Your task to perform on an android device: toggle sleep mode Image 0: 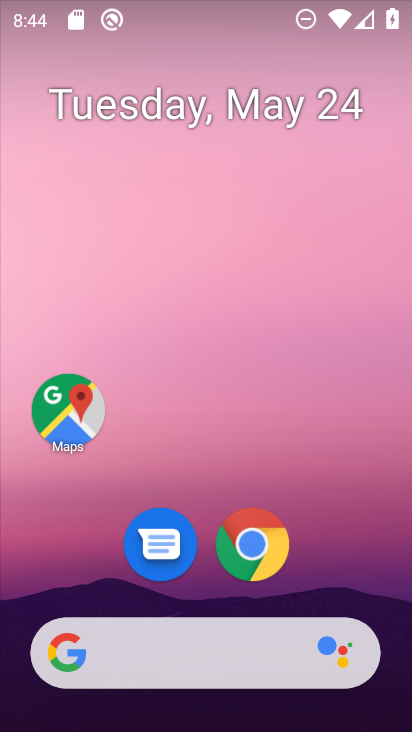
Step 0: drag from (362, 589) to (238, 37)
Your task to perform on an android device: toggle sleep mode Image 1: 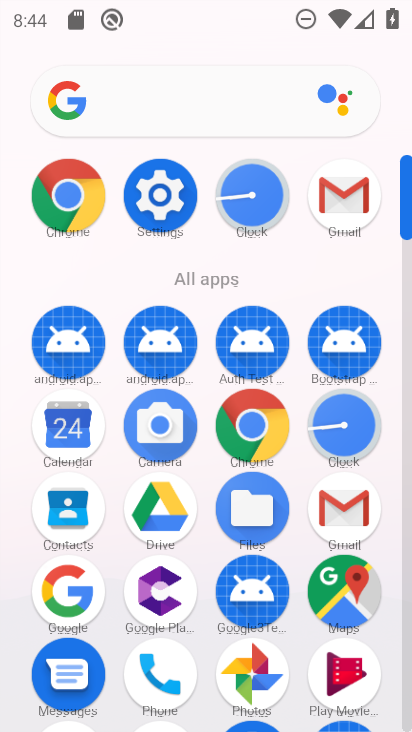
Step 1: click (165, 233)
Your task to perform on an android device: toggle sleep mode Image 2: 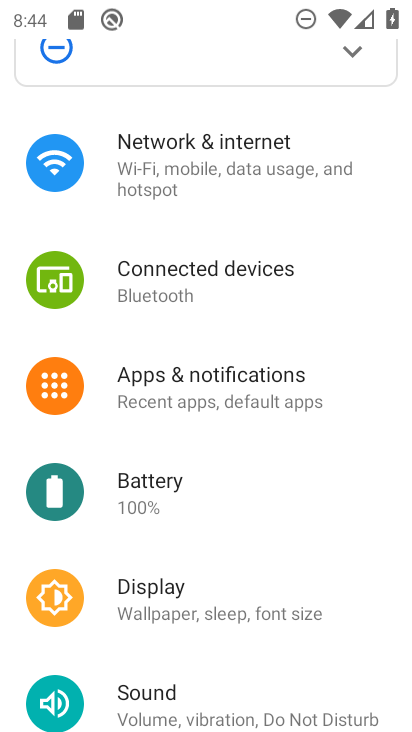
Step 2: click (220, 593)
Your task to perform on an android device: toggle sleep mode Image 3: 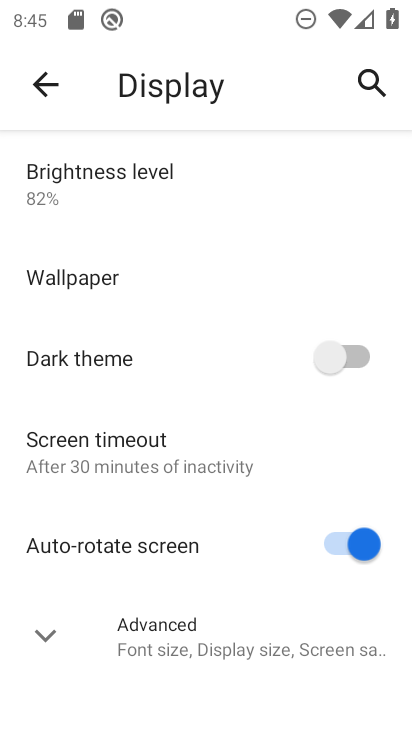
Step 3: click (236, 637)
Your task to perform on an android device: toggle sleep mode Image 4: 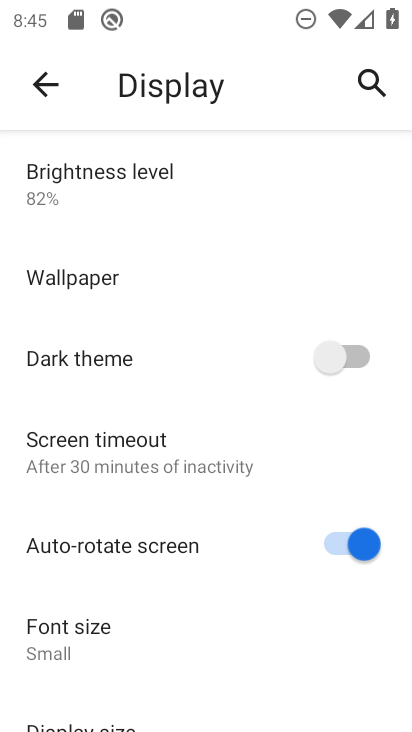
Step 4: task complete